Your task to perform on an android device: What's the weather going to be tomorrow? Image 0: 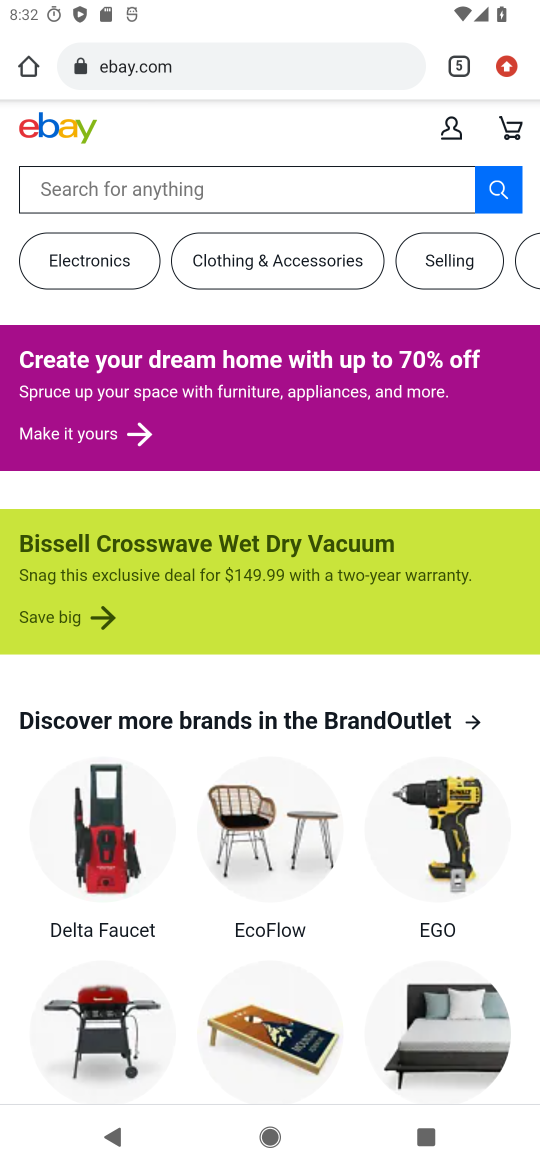
Step 0: press home button
Your task to perform on an android device: What's the weather going to be tomorrow? Image 1: 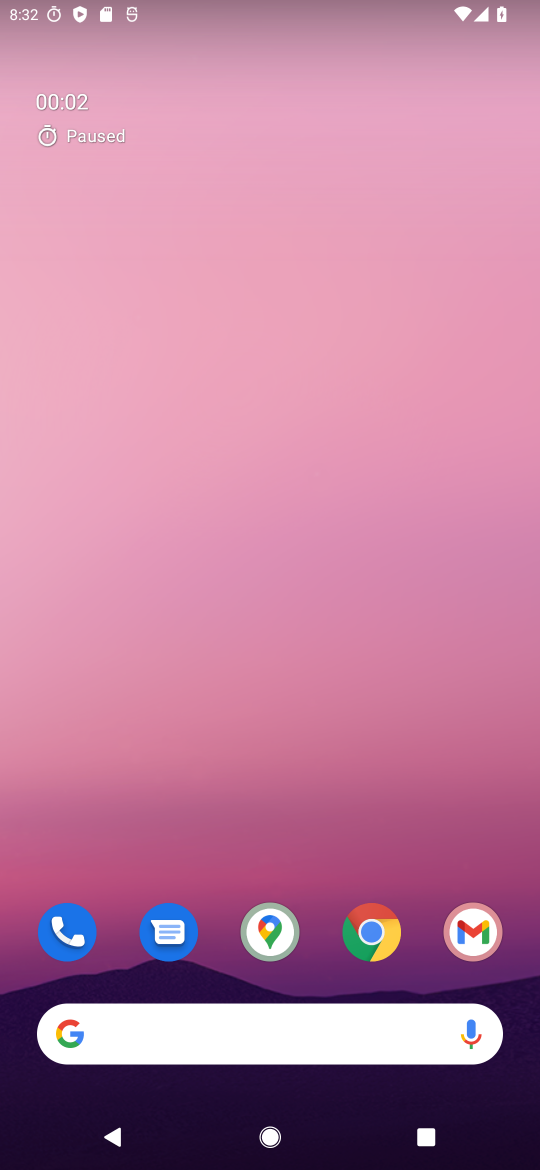
Step 1: click (203, 1034)
Your task to perform on an android device: What's the weather going to be tomorrow? Image 2: 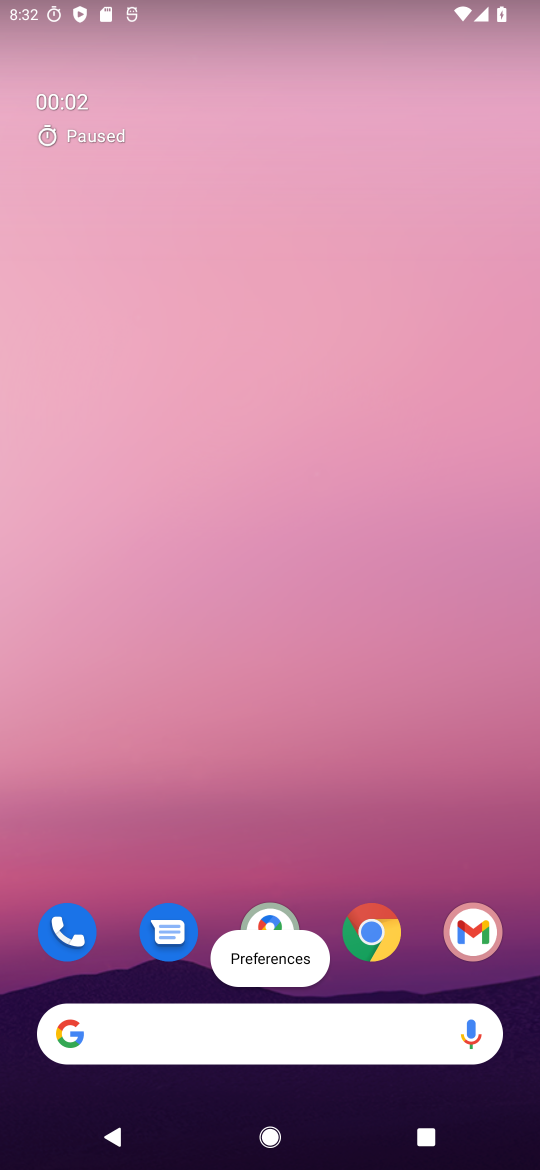
Step 2: click (185, 1035)
Your task to perform on an android device: What's the weather going to be tomorrow? Image 3: 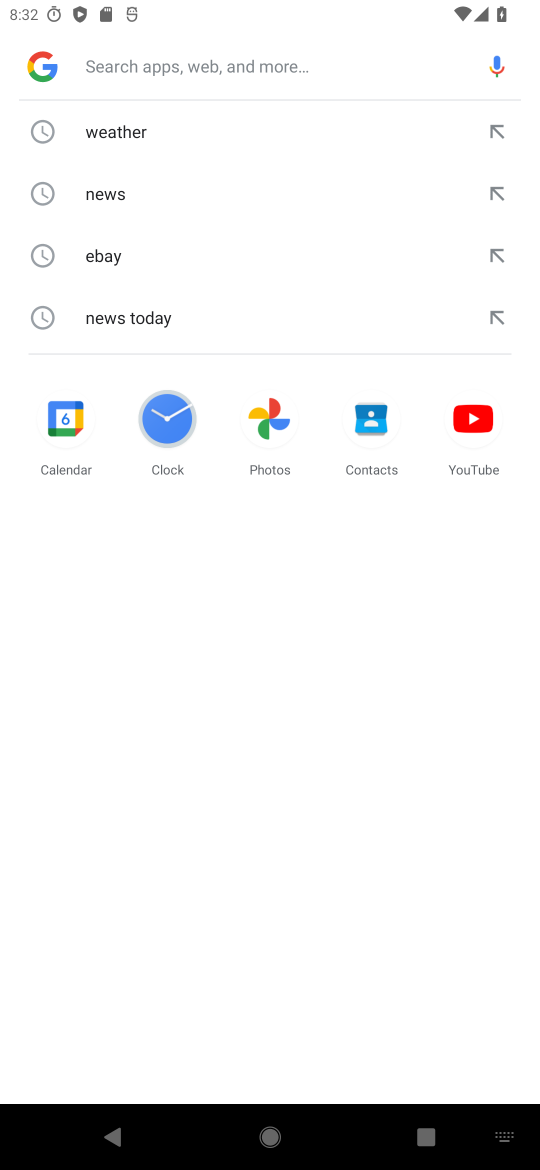
Step 3: click (135, 131)
Your task to perform on an android device: What's the weather going to be tomorrow? Image 4: 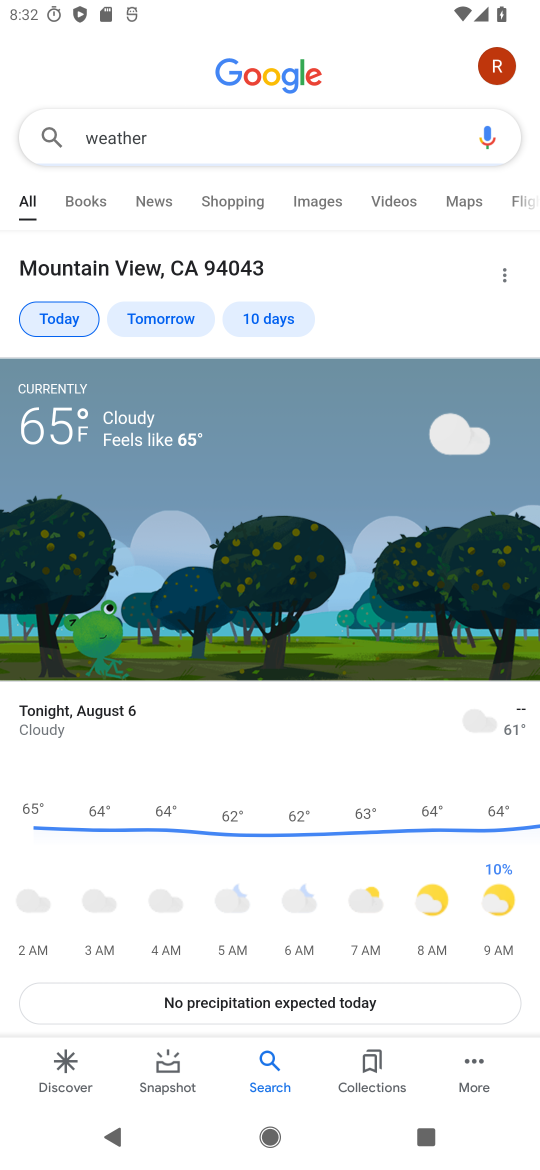
Step 4: click (178, 312)
Your task to perform on an android device: What's the weather going to be tomorrow? Image 5: 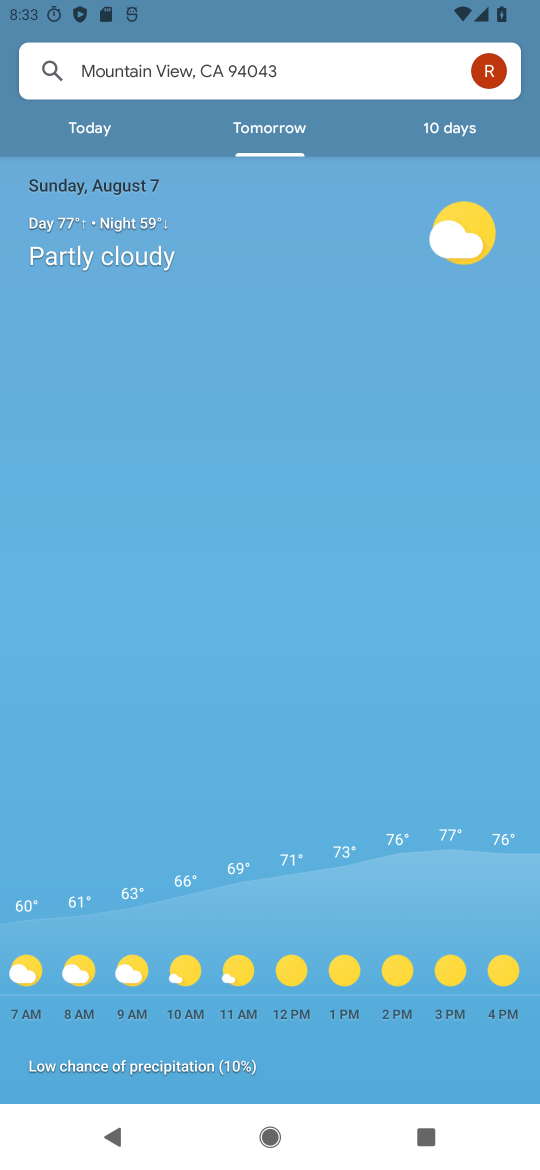
Step 5: task complete